Your task to perform on an android device: Go to privacy settings Image 0: 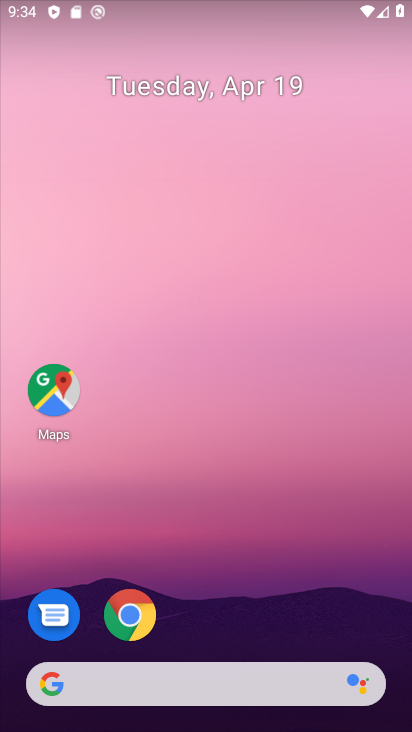
Step 0: drag from (198, 628) to (250, 224)
Your task to perform on an android device: Go to privacy settings Image 1: 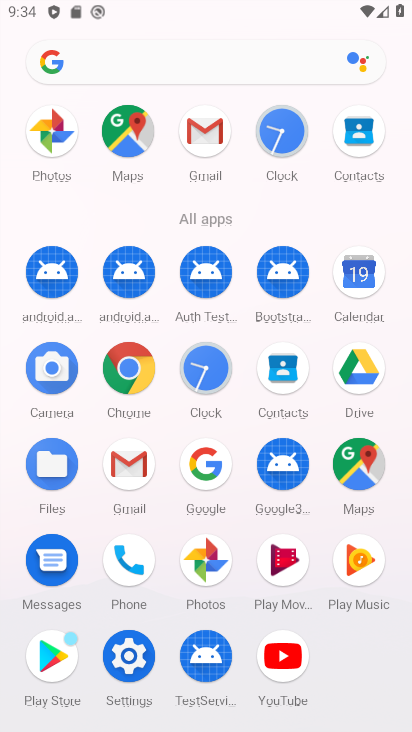
Step 1: click (120, 657)
Your task to perform on an android device: Go to privacy settings Image 2: 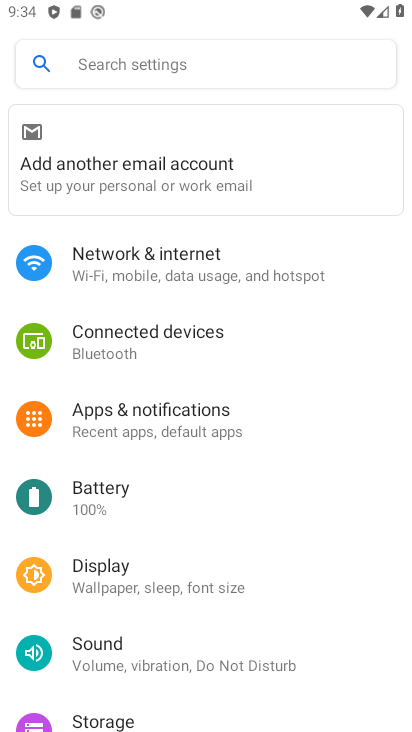
Step 2: drag from (179, 601) to (263, 192)
Your task to perform on an android device: Go to privacy settings Image 3: 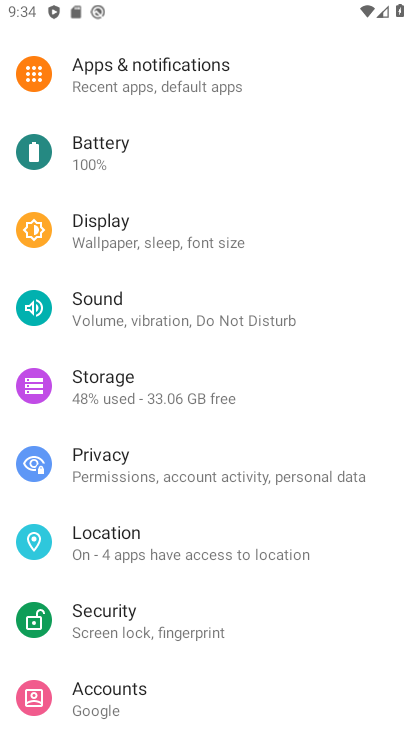
Step 3: click (158, 461)
Your task to perform on an android device: Go to privacy settings Image 4: 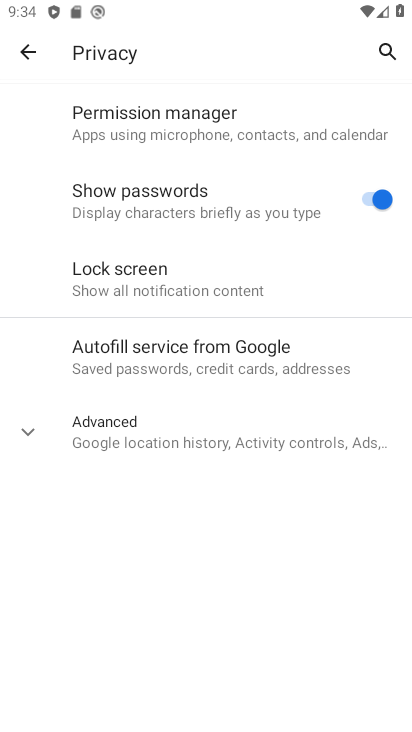
Step 4: task complete